Your task to perform on an android device: Open settings Image 0: 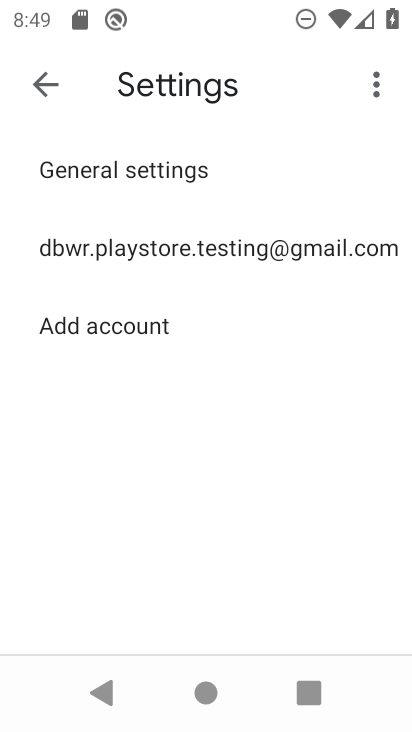
Step 0: press home button
Your task to perform on an android device: Open settings Image 1: 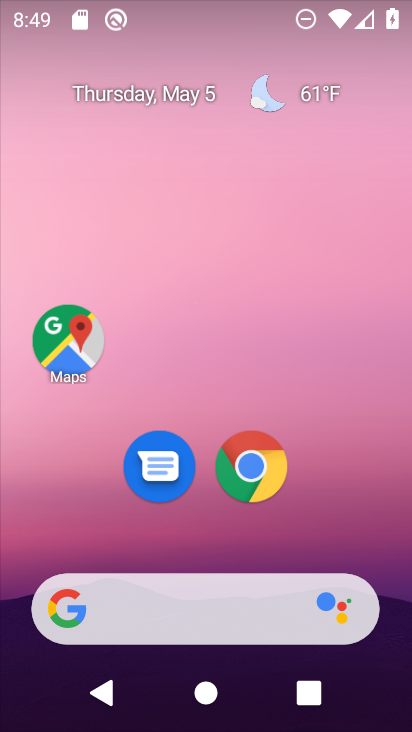
Step 1: drag from (232, 600) to (259, 211)
Your task to perform on an android device: Open settings Image 2: 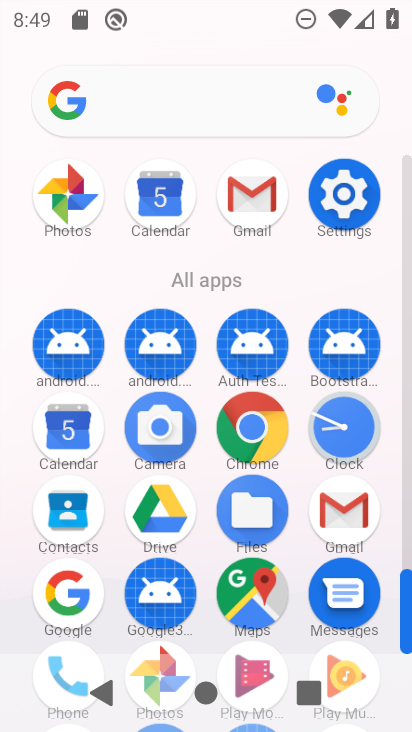
Step 2: click (337, 206)
Your task to perform on an android device: Open settings Image 3: 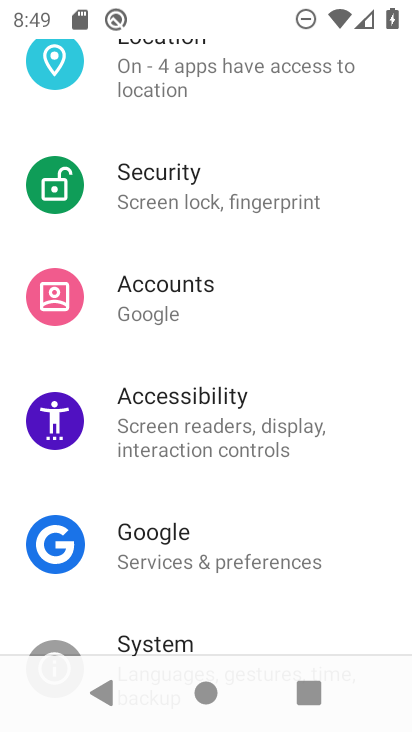
Step 3: task complete